Your task to perform on an android device: Search for pizza restaurants on Maps Image 0: 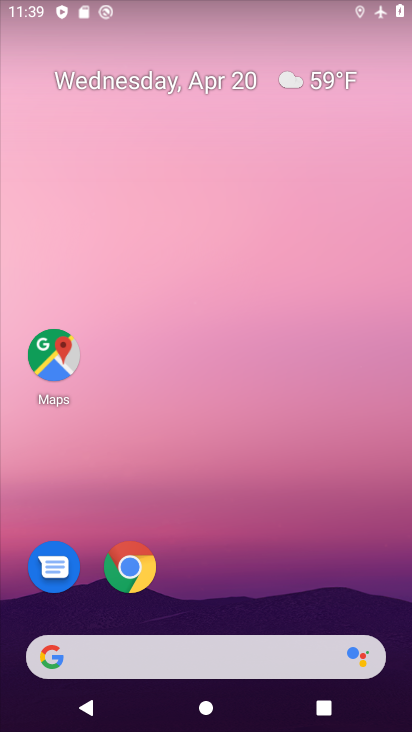
Step 0: drag from (233, 593) to (199, 121)
Your task to perform on an android device: Search for pizza restaurants on Maps Image 1: 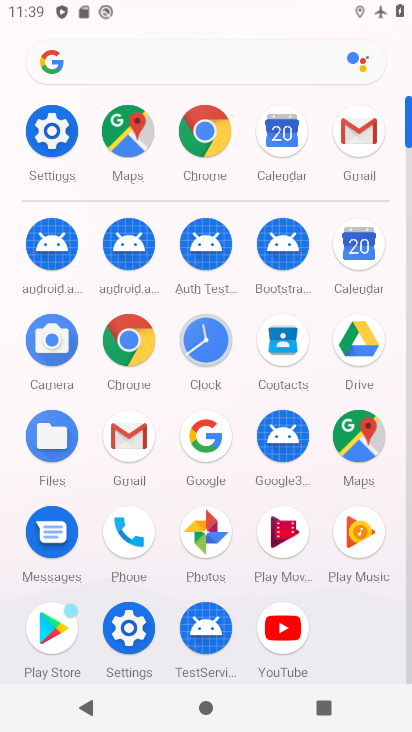
Step 1: click (344, 442)
Your task to perform on an android device: Search for pizza restaurants on Maps Image 2: 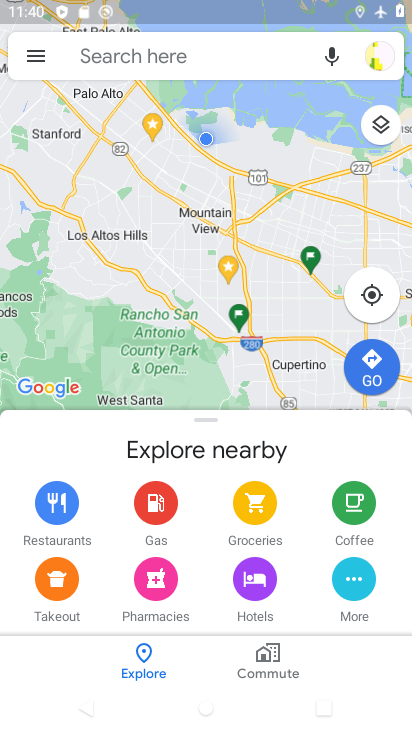
Step 2: click (168, 62)
Your task to perform on an android device: Search for pizza restaurants on Maps Image 3: 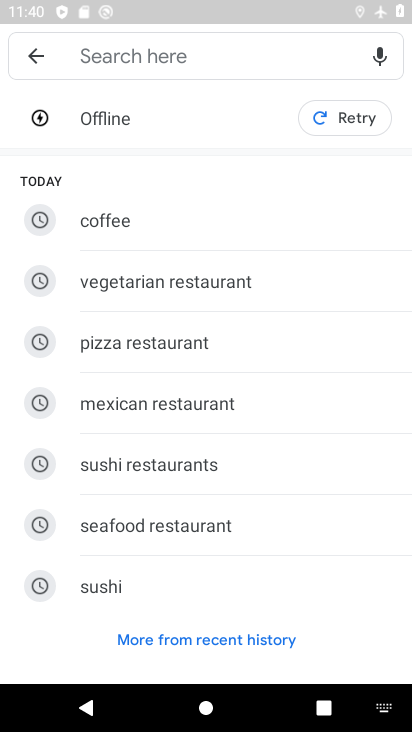
Step 3: type "pizza restaurants"
Your task to perform on an android device: Search for pizza restaurants on Maps Image 4: 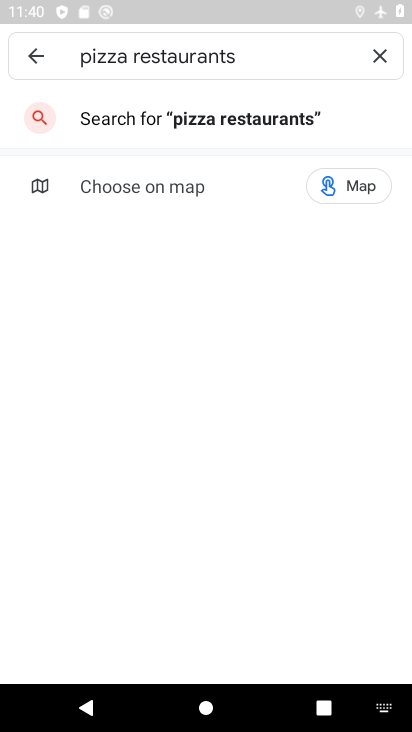
Step 4: click (273, 125)
Your task to perform on an android device: Search for pizza restaurants on Maps Image 5: 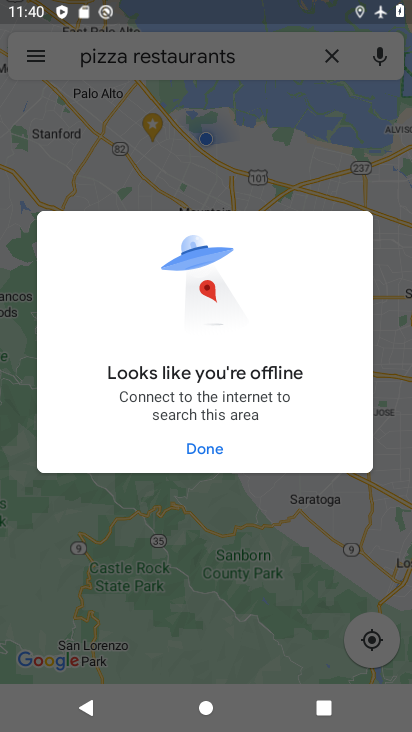
Step 5: task complete